Your task to perform on an android device: refresh tabs in the chrome app Image 0: 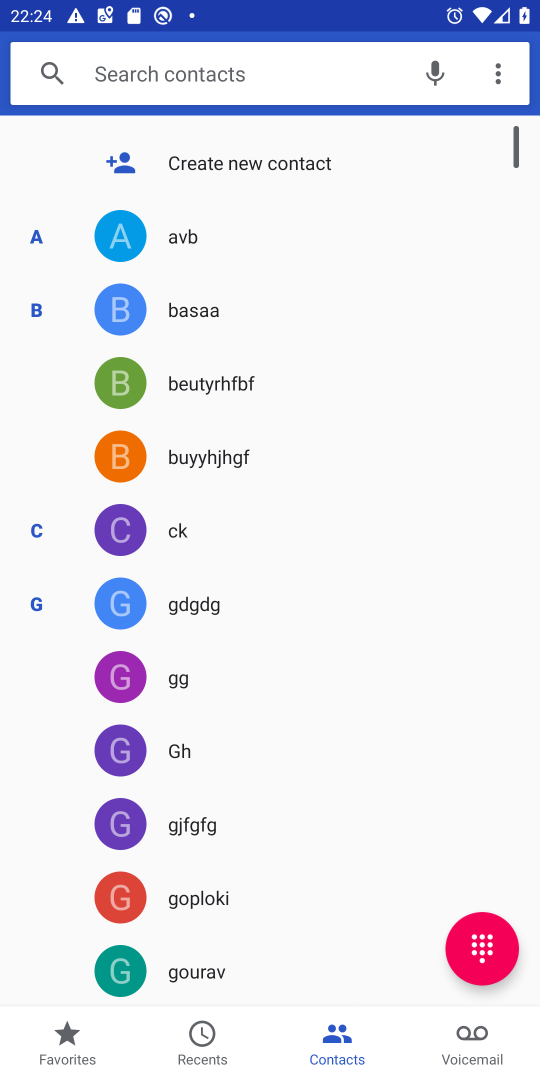
Step 0: press home button
Your task to perform on an android device: refresh tabs in the chrome app Image 1: 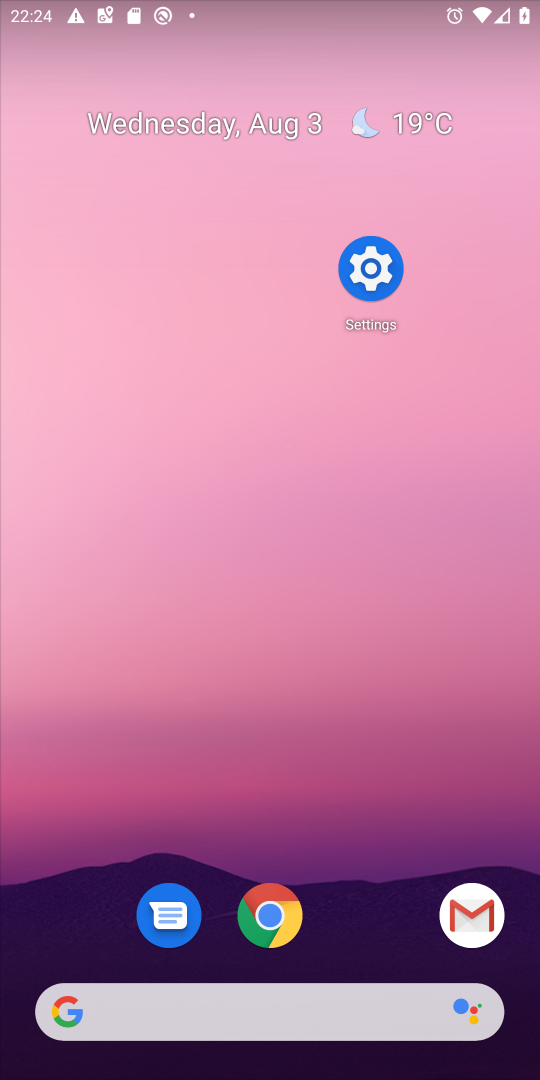
Step 1: drag from (316, 1024) to (235, 351)
Your task to perform on an android device: refresh tabs in the chrome app Image 2: 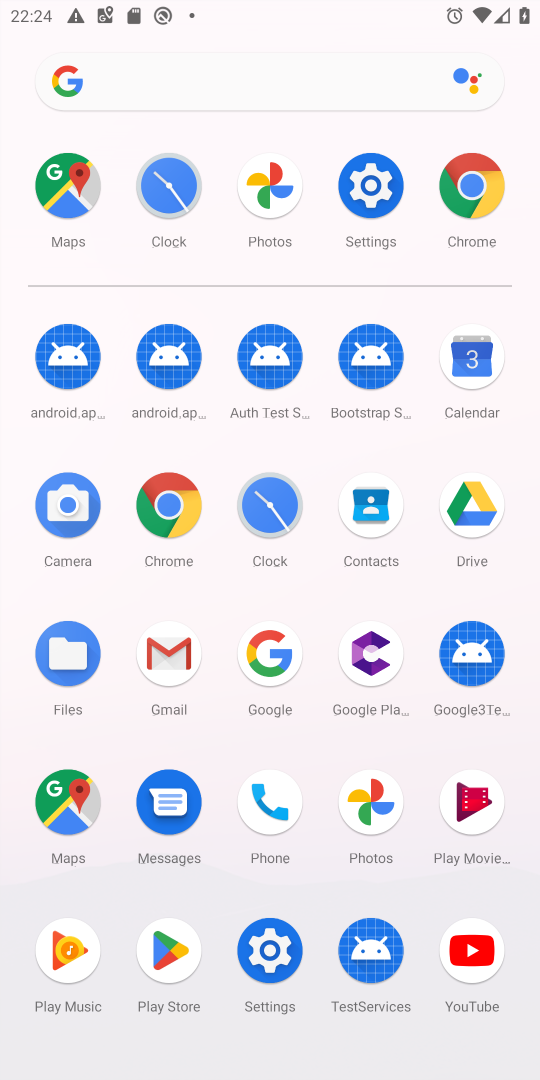
Step 2: click (450, 211)
Your task to perform on an android device: refresh tabs in the chrome app Image 3: 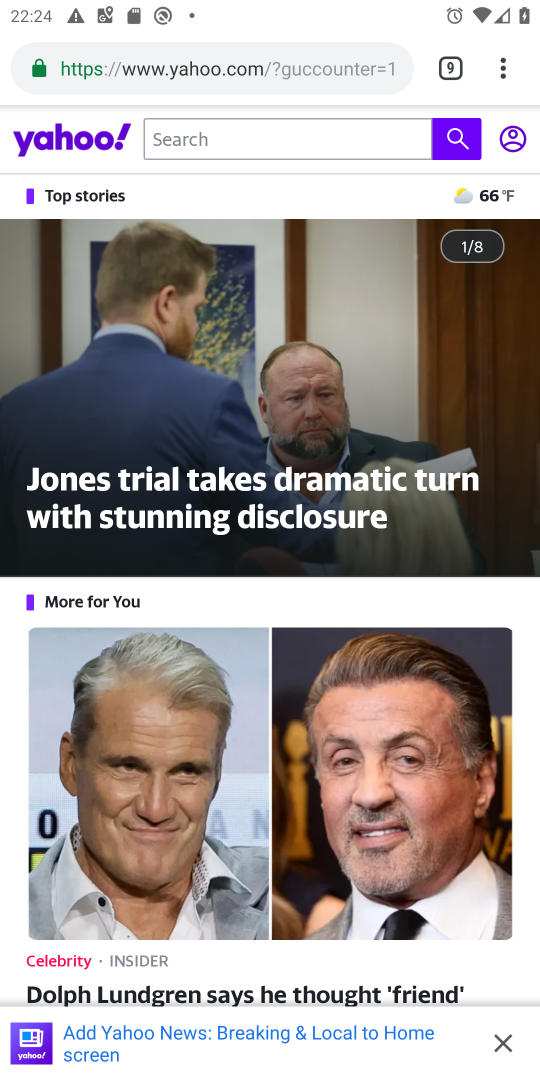
Step 3: click (495, 77)
Your task to perform on an android device: refresh tabs in the chrome app Image 4: 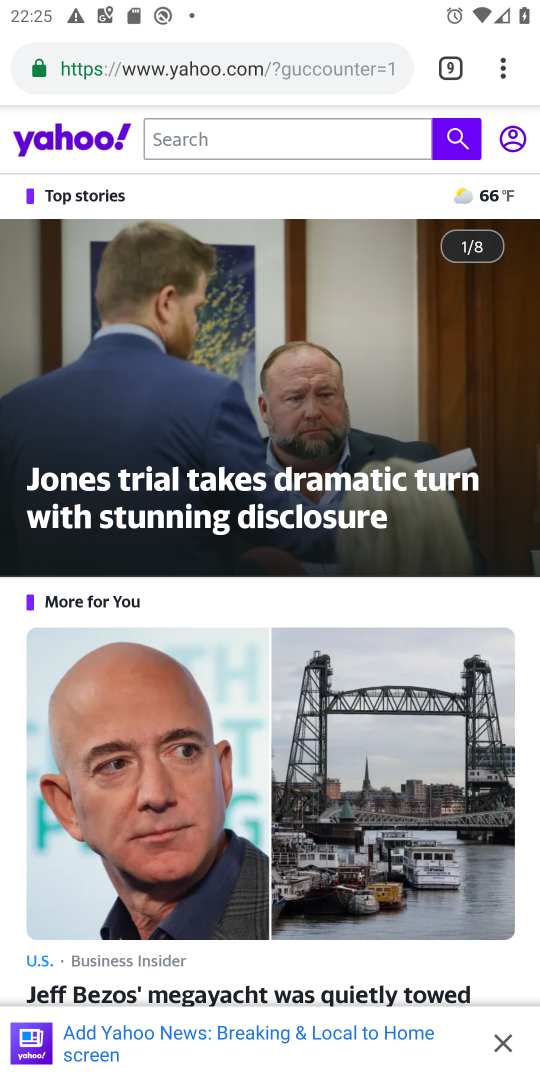
Step 4: task complete